Your task to perform on an android device: see sites visited before in the chrome app Image 0: 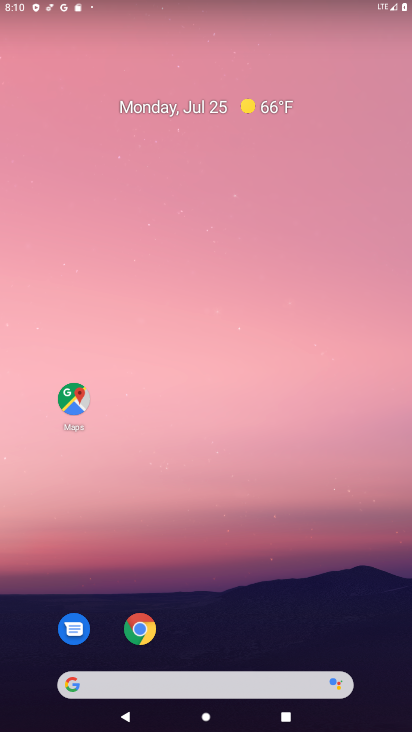
Step 0: press home button
Your task to perform on an android device: see sites visited before in the chrome app Image 1: 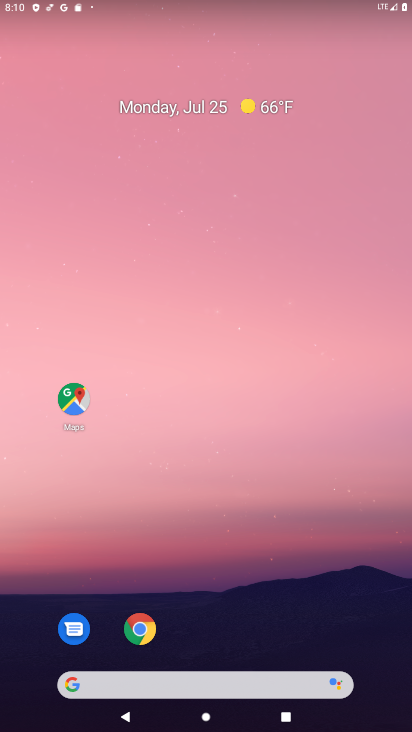
Step 1: click (136, 629)
Your task to perform on an android device: see sites visited before in the chrome app Image 2: 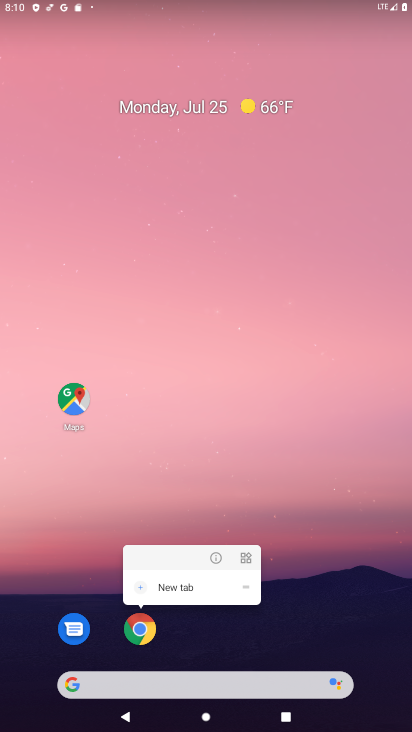
Step 2: click (185, 629)
Your task to perform on an android device: see sites visited before in the chrome app Image 3: 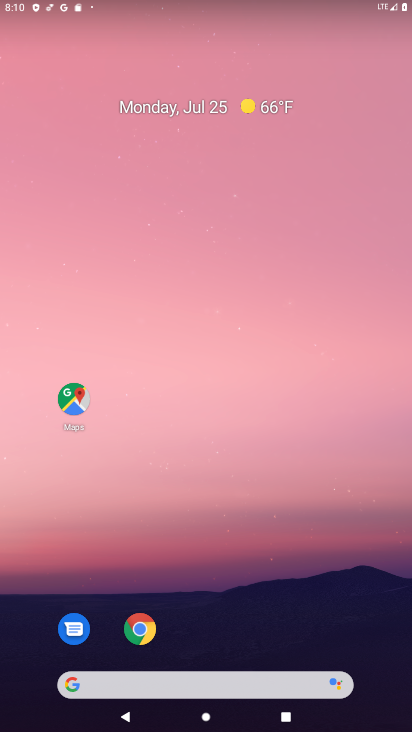
Step 3: click (136, 623)
Your task to perform on an android device: see sites visited before in the chrome app Image 4: 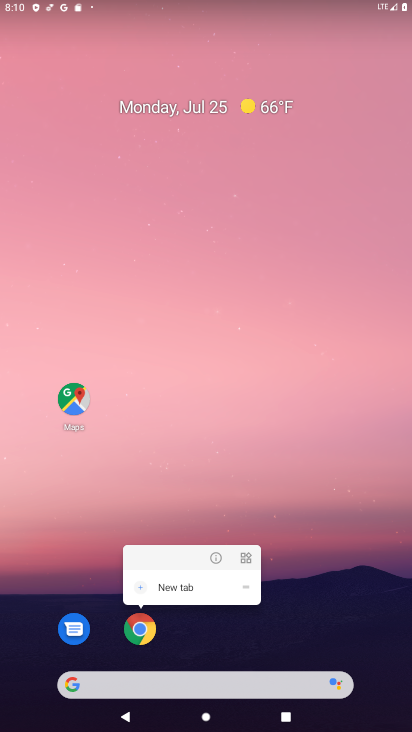
Step 4: click (136, 623)
Your task to perform on an android device: see sites visited before in the chrome app Image 5: 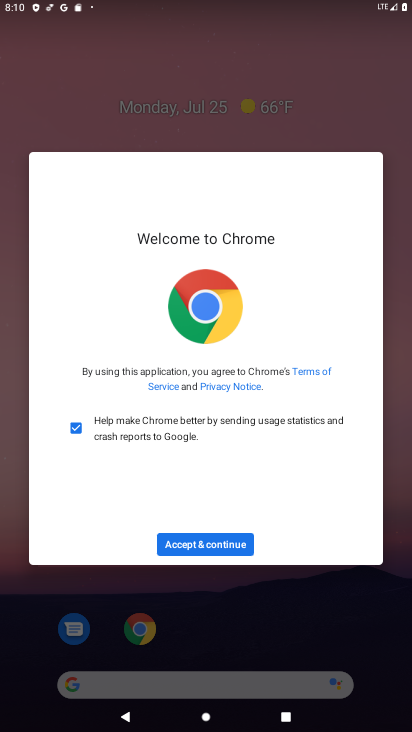
Step 5: click (198, 539)
Your task to perform on an android device: see sites visited before in the chrome app Image 6: 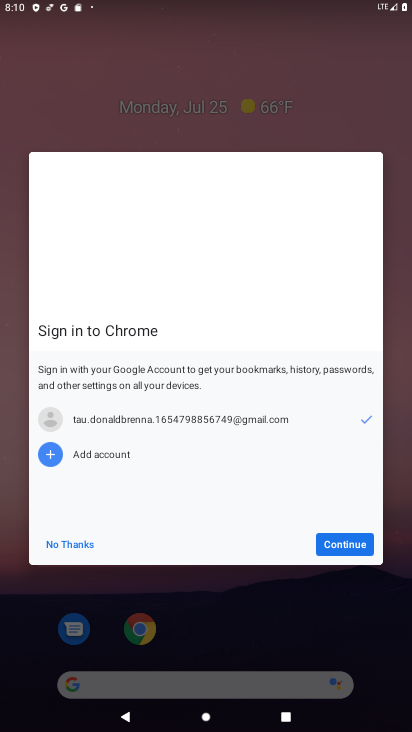
Step 6: click (351, 540)
Your task to perform on an android device: see sites visited before in the chrome app Image 7: 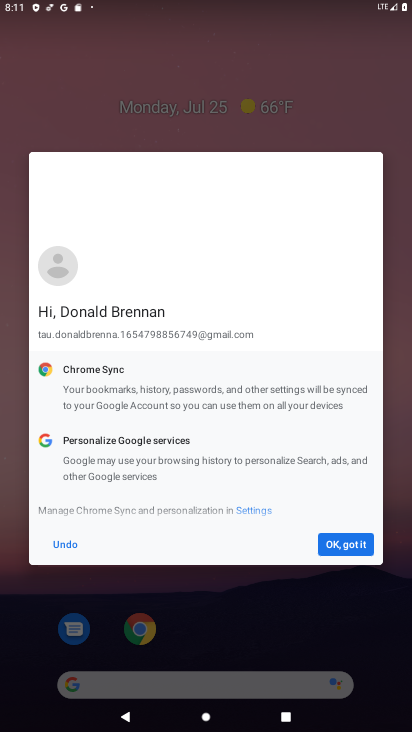
Step 7: click (342, 538)
Your task to perform on an android device: see sites visited before in the chrome app Image 8: 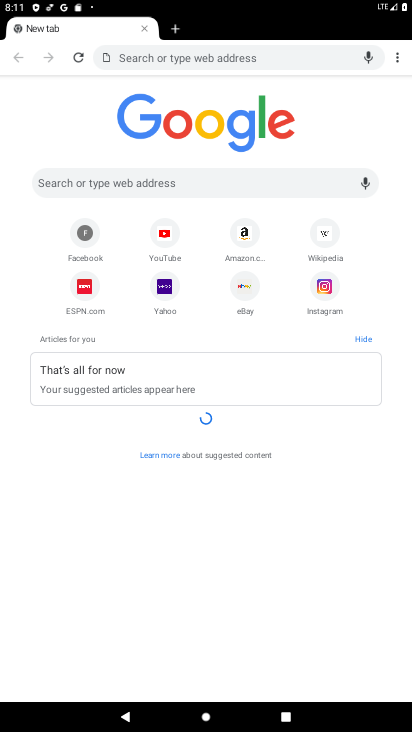
Step 8: click (398, 51)
Your task to perform on an android device: see sites visited before in the chrome app Image 9: 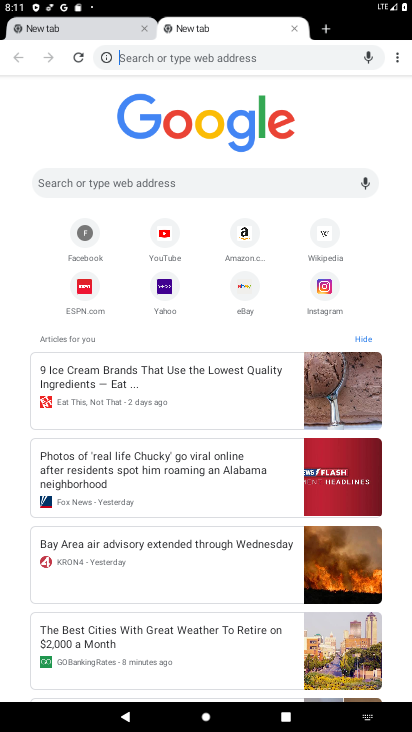
Step 9: click (397, 57)
Your task to perform on an android device: see sites visited before in the chrome app Image 10: 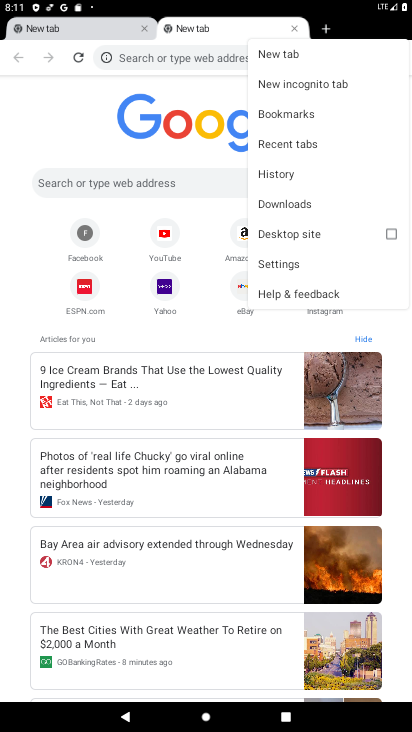
Step 10: click (300, 172)
Your task to perform on an android device: see sites visited before in the chrome app Image 11: 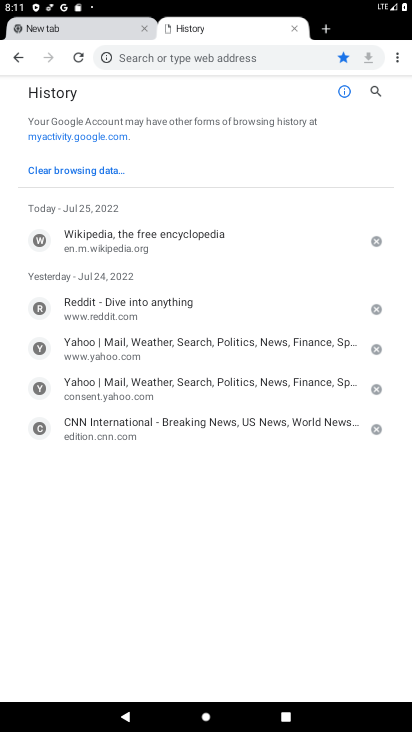
Step 11: task complete